Your task to perform on an android device: turn on airplane mode Image 0: 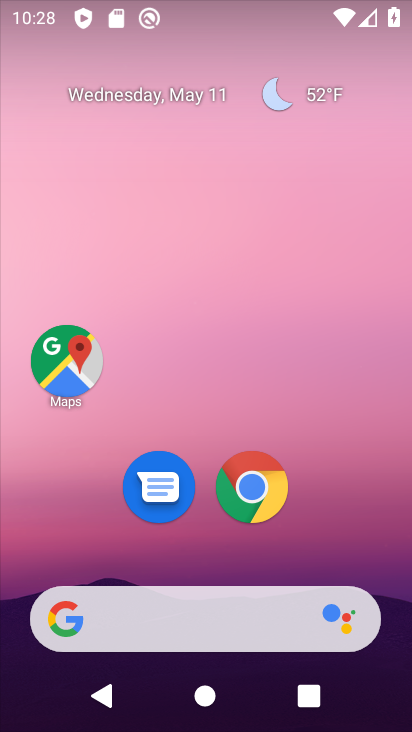
Step 0: drag from (342, 519) to (239, 4)
Your task to perform on an android device: turn on airplane mode Image 1: 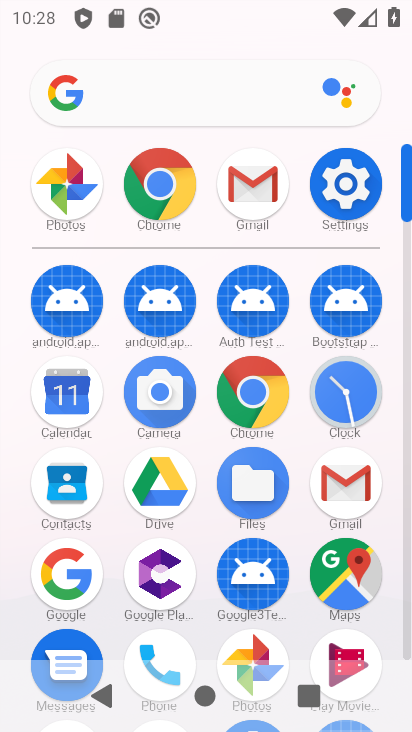
Step 1: drag from (9, 612) to (24, 273)
Your task to perform on an android device: turn on airplane mode Image 2: 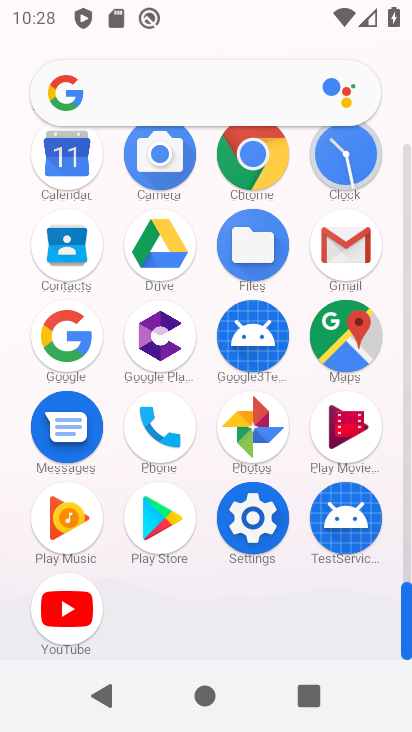
Step 2: click (249, 514)
Your task to perform on an android device: turn on airplane mode Image 3: 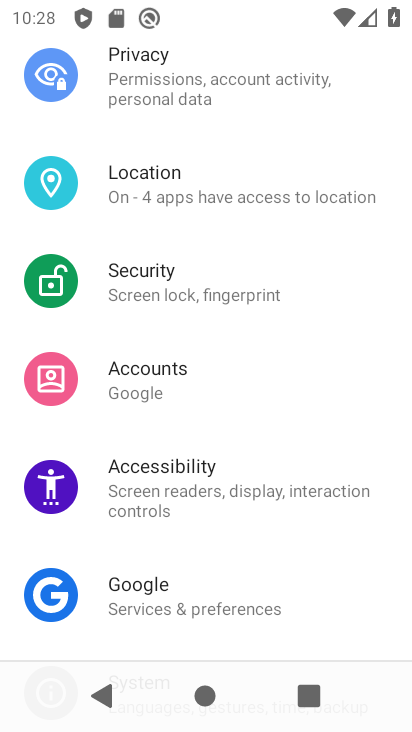
Step 3: drag from (252, 154) to (243, 554)
Your task to perform on an android device: turn on airplane mode Image 4: 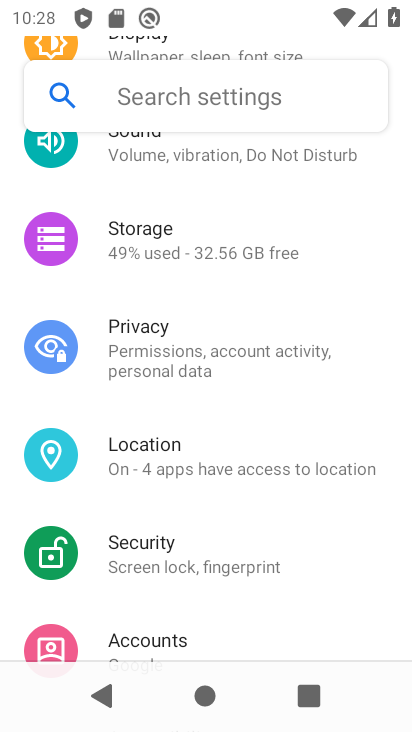
Step 4: drag from (249, 224) to (241, 618)
Your task to perform on an android device: turn on airplane mode Image 5: 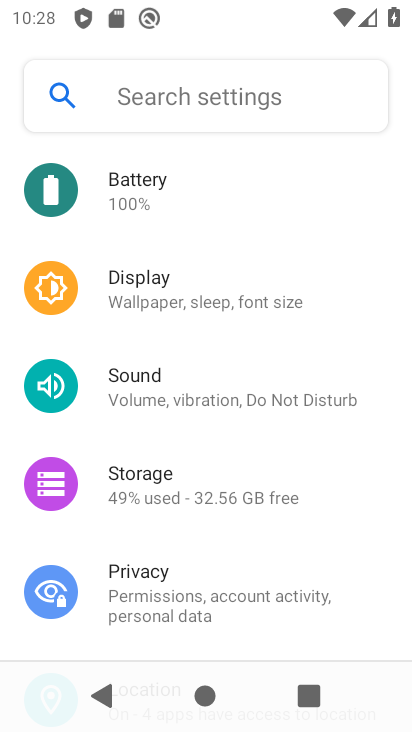
Step 5: drag from (284, 267) to (247, 583)
Your task to perform on an android device: turn on airplane mode Image 6: 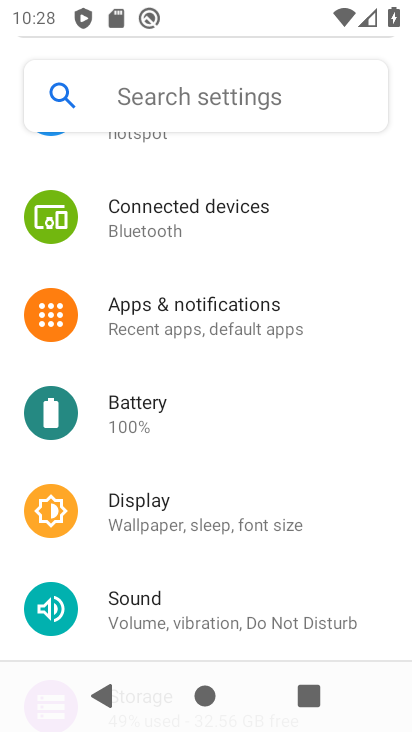
Step 6: drag from (285, 251) to (273, 574)
Your task to perform on an android device: turn on airplane mode Image 7: 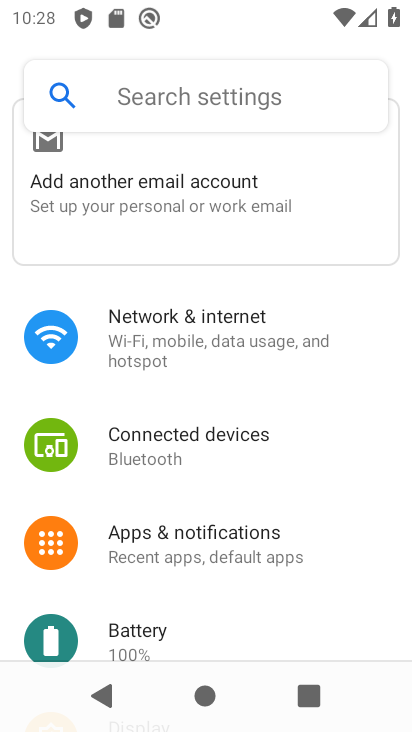
Step 7: click (215, 330)
Your task to perform on an android device: turn on airplane mode Image 8: 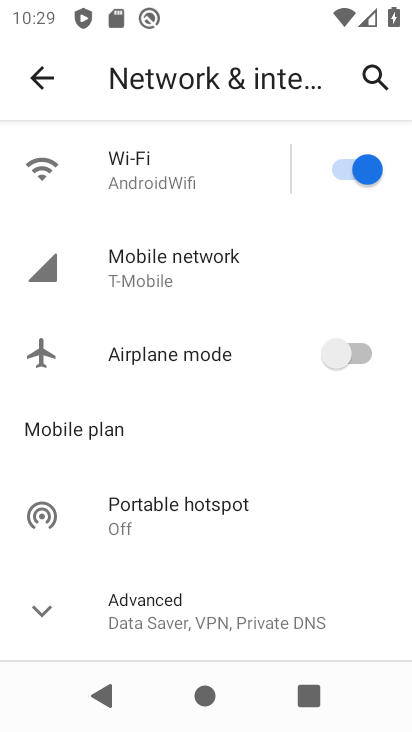
Step 8: click (356, 351)
Your task to perform on an android device: turn on airplane mode Image 9: 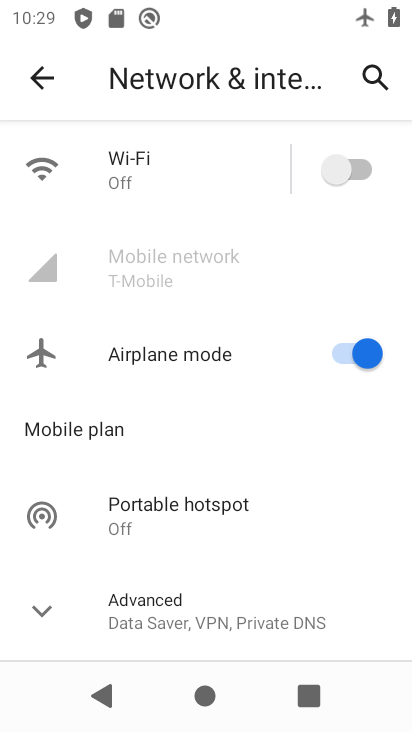
Step 9: task complete